Your task to perform on an android device: check data usage Image 0: 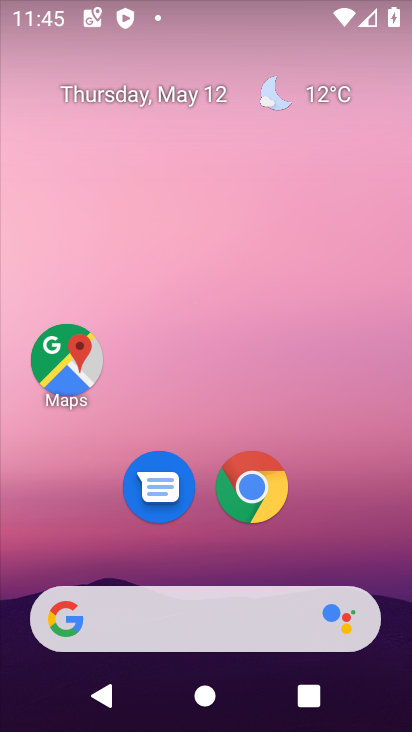
Step 0: drag from (375, 569) to (398, 9)
Your task to perform on an android device: check data usage Image 1: 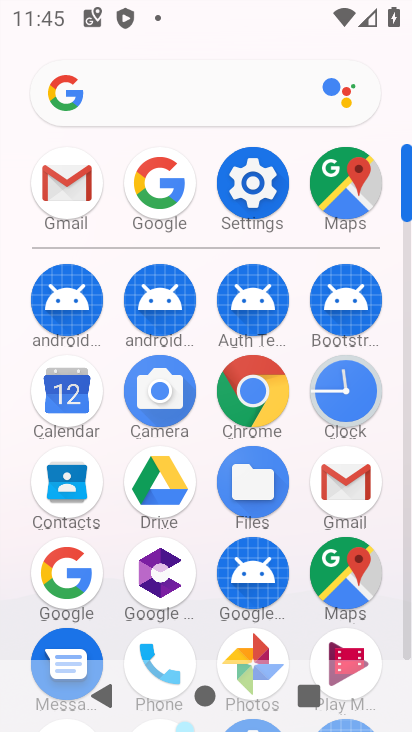
Step 1: click (251, 187)
Your task to perform on an android device: check data usage Image 2: 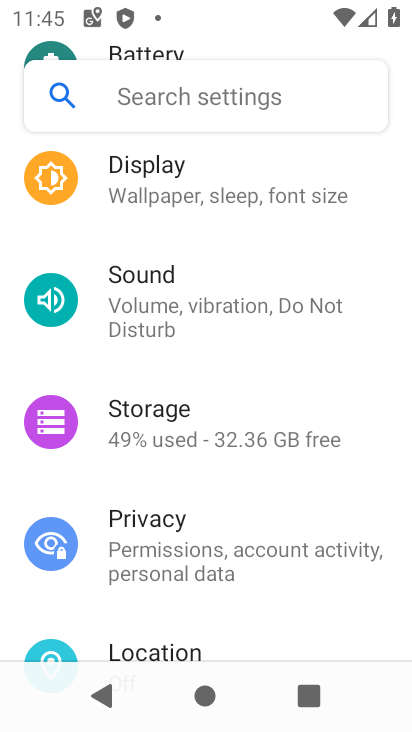
Step 2: drag from (379, 214) to (325, 528)
Your task to perform on an android device: check data usage Image 3: 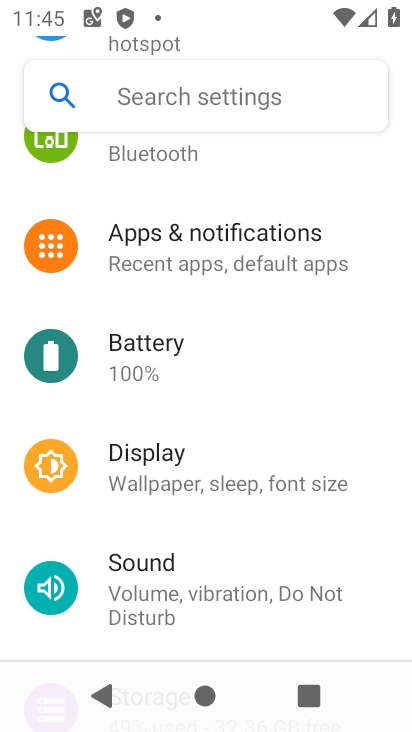
Step 3: drag from (384, 224) to (355, 641)
Your task to perform on an android device: check data usage Image 4: 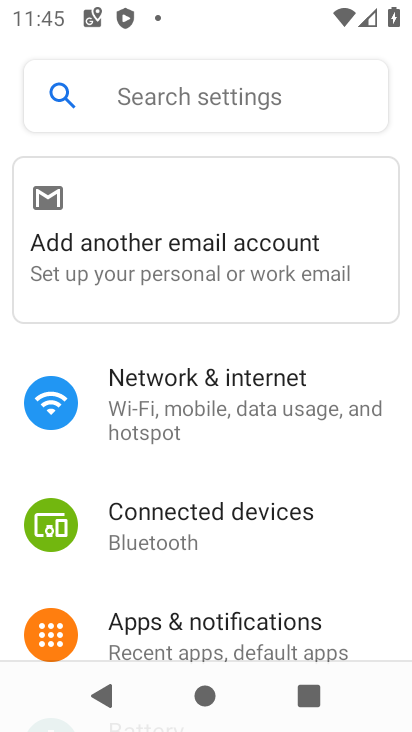
Step 4: click (198, 420)
Your task to perform on an android device: check data usage Image 5: 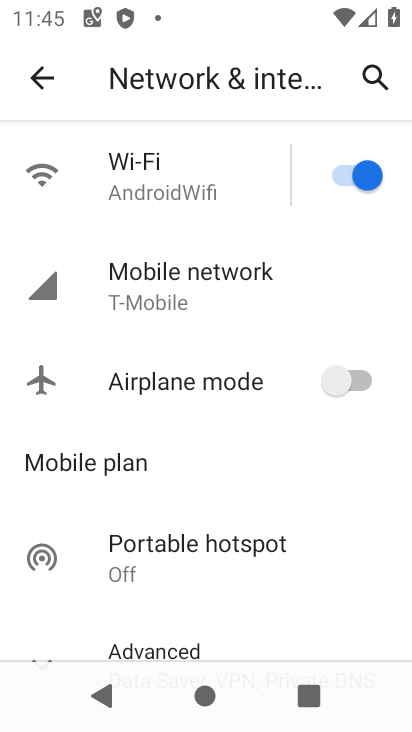
Step 5: click (155, 287)
Your task to perform on an android device: check data usage Image 6: 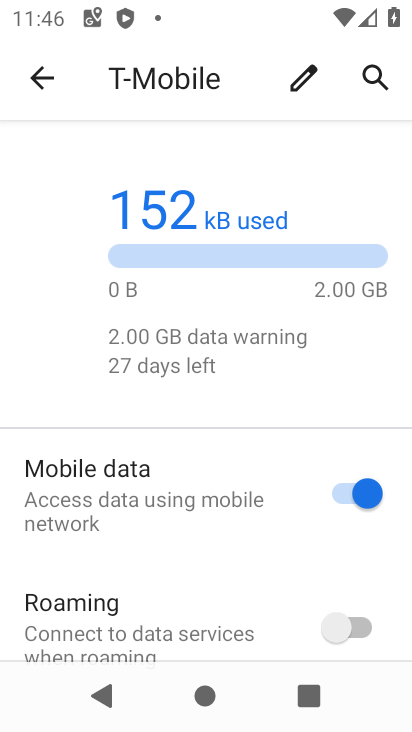
Step 6: drag from (206, 538) to (190, 149)
Your task to perform on an android device: check data usage Image 7: 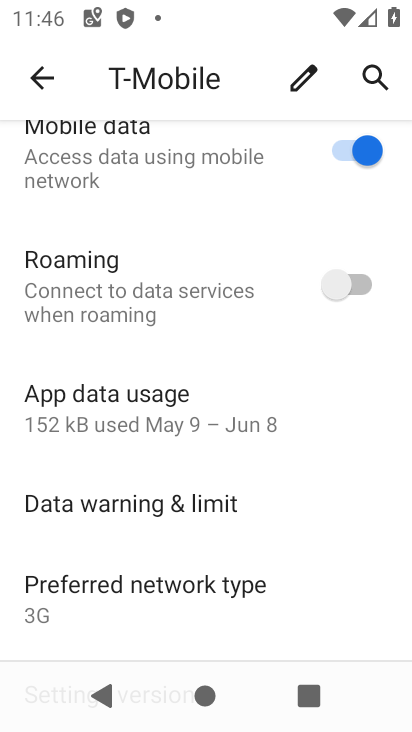
Step 7: click (105, 399)
Your task to perform on an android device: check data usage Image 8: 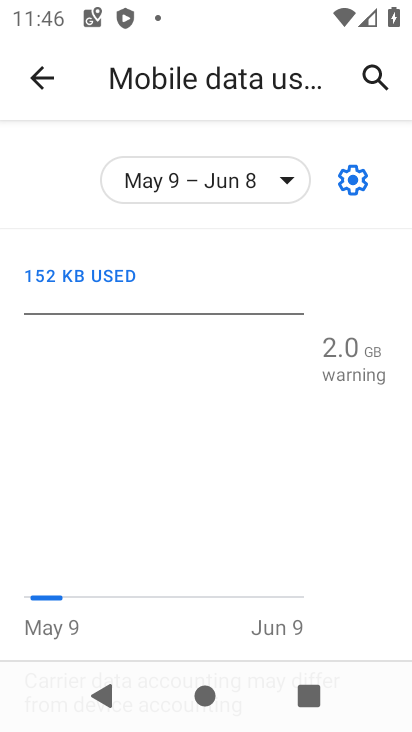
Step 8: task complete